Your task to perform on an android device: turn on notifications settings in the gmail app Image 0: 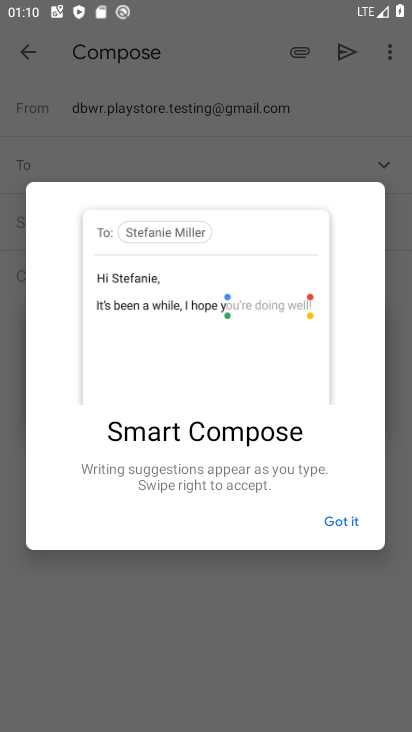
Step 0: press home button
Your task to perform on an android device: turn on notifications settings in the gmail app Image 1: 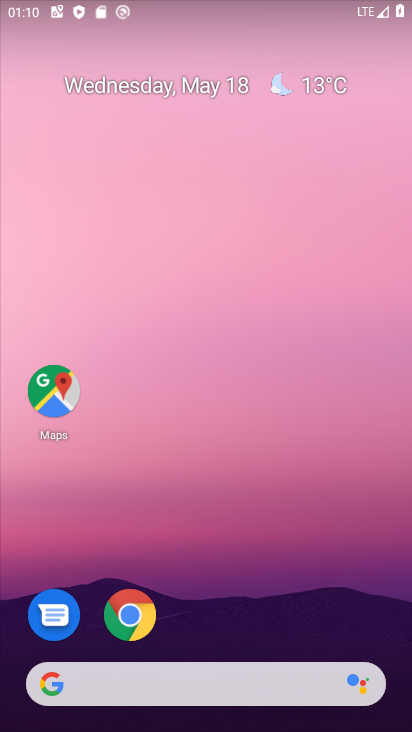
Step 1: drag from (150, 678) to (265, 166)
Your task to perform on an android device: turn on notifications settings in the gmail app Image 2: 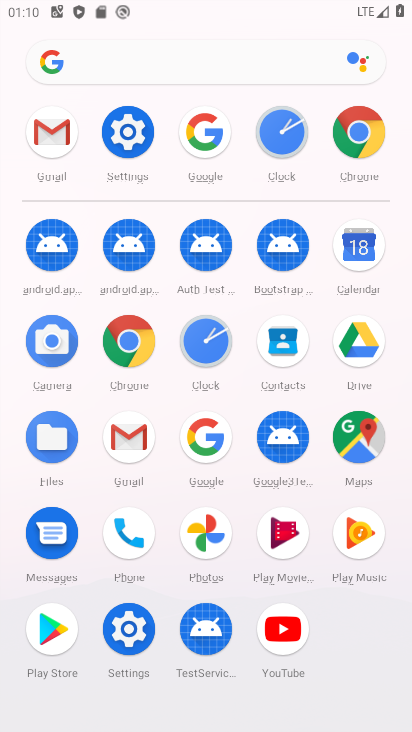
Step 2: click (55, 143)
Your task to perform on an android device: turn on notifications settings in the gmail app Image 3: 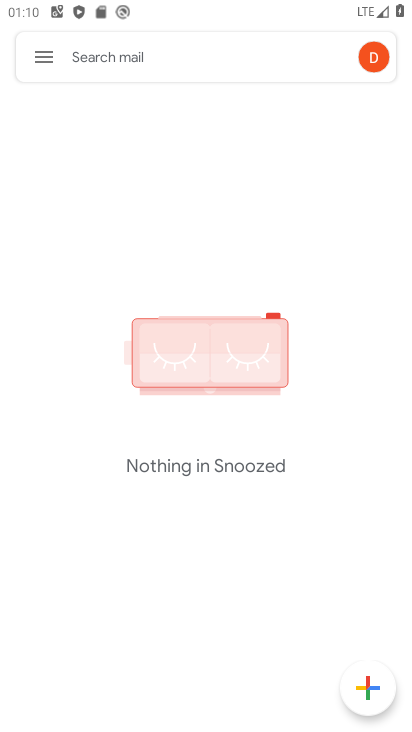
Step 3: click (44, 56)
Your task to perform on an android device: turn on notifications settings in the gmail app Image 4: 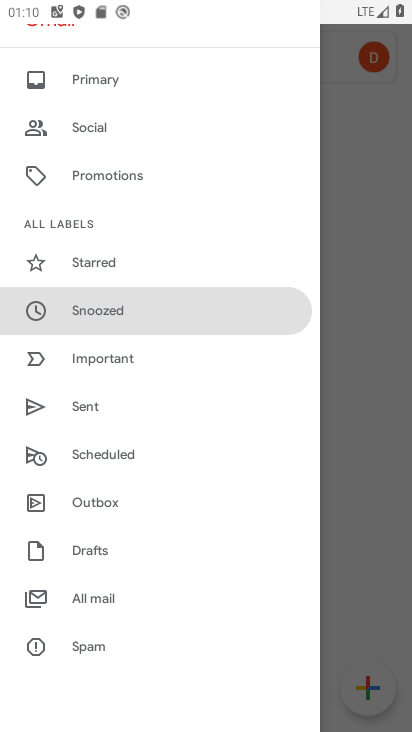
Step 4: drag from (165, 612) to (230, 114)
Your task to perform on an android device: turn on notifications settings in the gmail app Image 5: 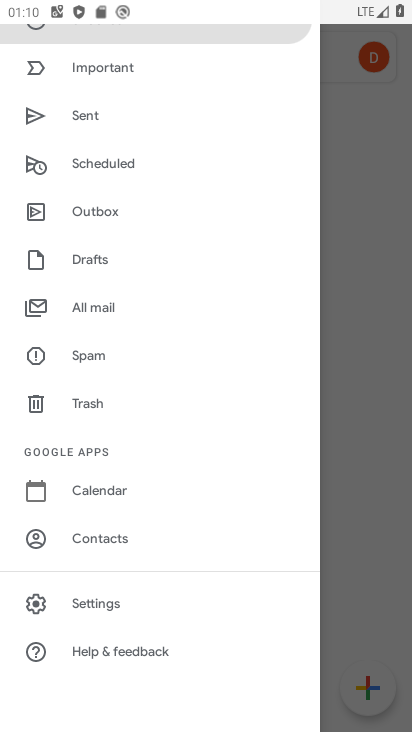
Step 5: click (90, 597)
Your task to perform on an android device: turn on notifications settings in the gmail app Image 6: 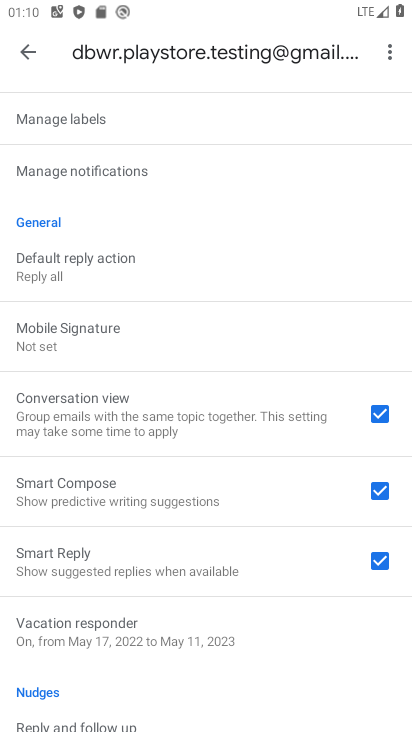
Step 6: drag from (256, 196) to (252, 512)
Your task to perform on an android device: turn on notifications settings in the gmail app Image 7: 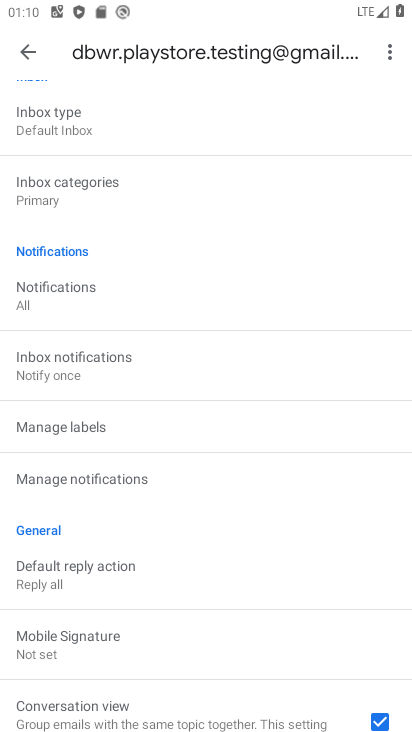
Step 7: click (90, 299)
Your task to perform on an android device: turn on notifications settings in the gmail app Image 8: 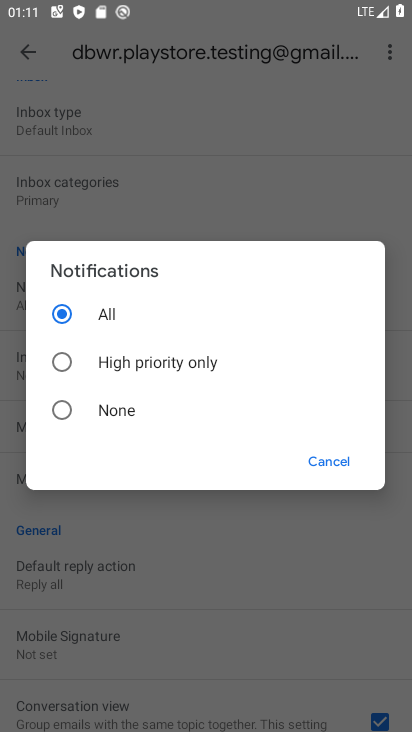
Step 8: task complete